Your task to perform on an android device: Open Google Chrome and open the bookmarks view Image 0: 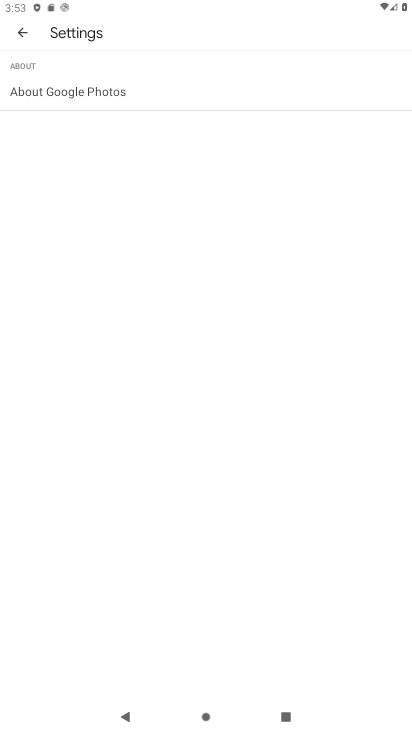
Step 0: press home button
Your task to perform on an android device: Open Google Chrome and open the bookmarks view Image 1: 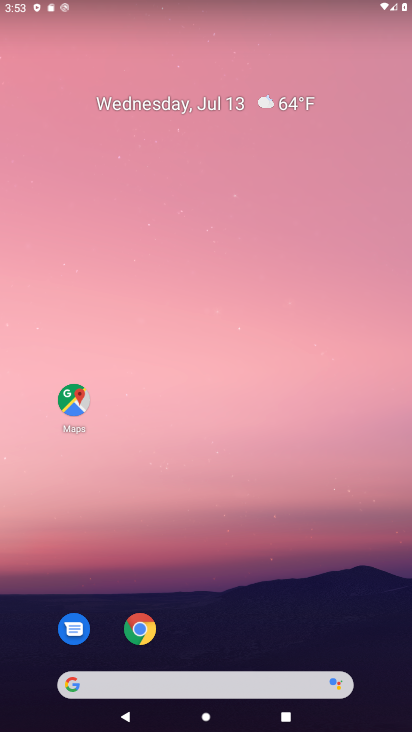
Step 1: click (148, 620)
Your task to perform on an android device: Open Google Chrome and open the bookmarks view Image 2: 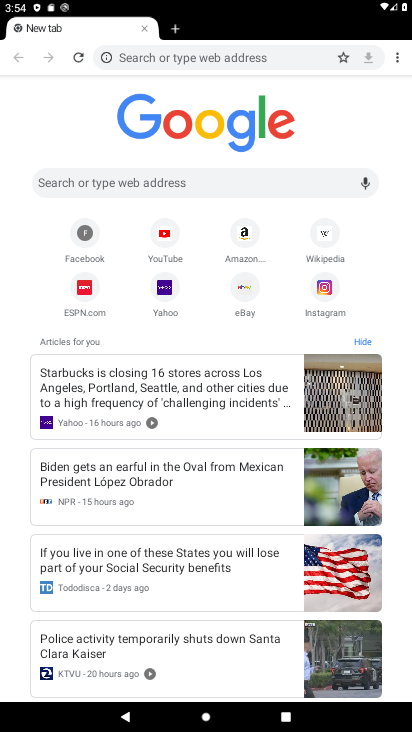
Step 2: click (387, 61)
Your task to perform on an android device: Open Google Chrome and open the bookmarks view Image 3: 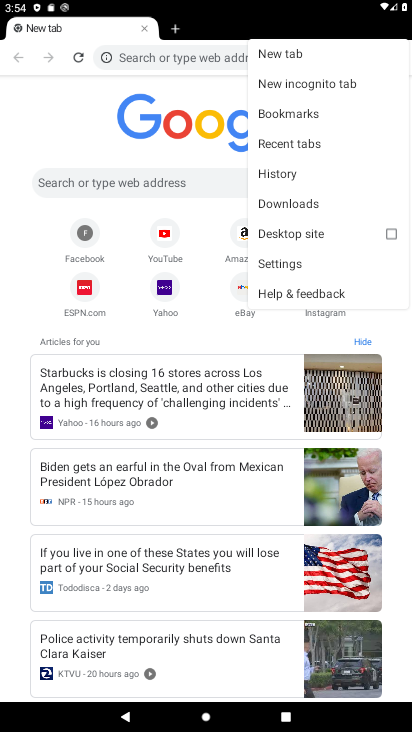
Step 3: click (326, 119)
Your task to perform on an android device: Open Google Chrome and open the bookmarks view Image 4: 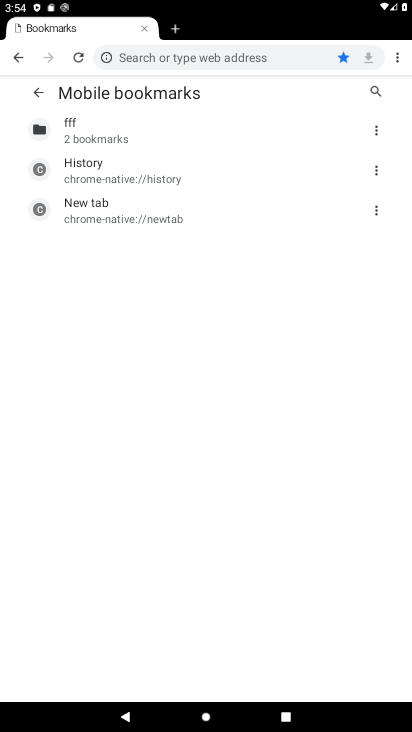
Step 4: task complete